Your task to perform on an android device: What is the capital of Italy? Image 0: 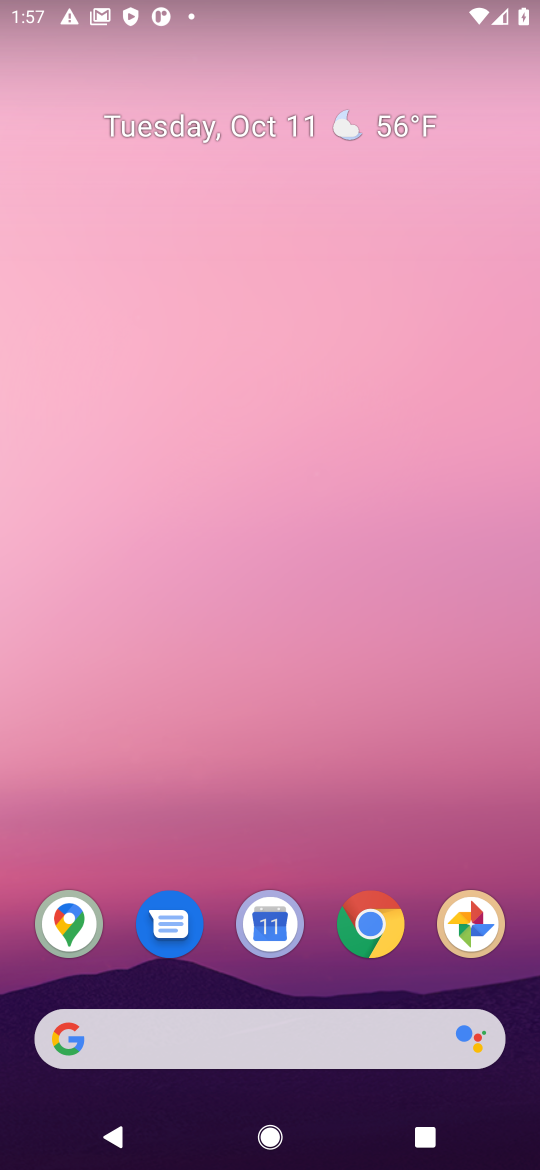
Step 0: drag from (321, 995) to (352, 59)
Your task to perform on an android device: What is the capital of Italy? Image 1: 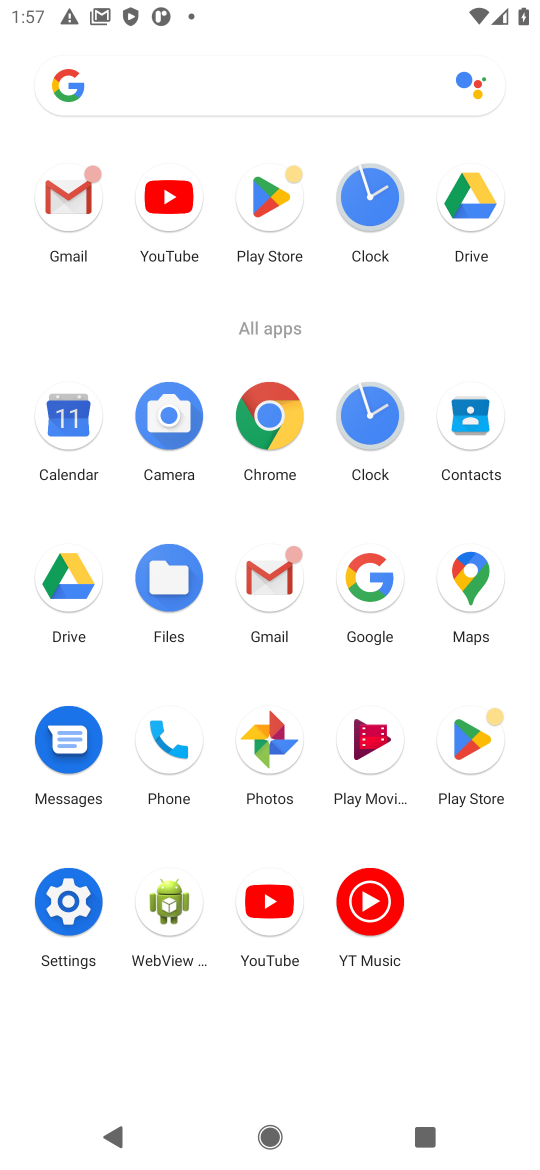
Step 1: click (367, 578)
Your task to perform on an android device: What is the capital of Italy? Image 2: 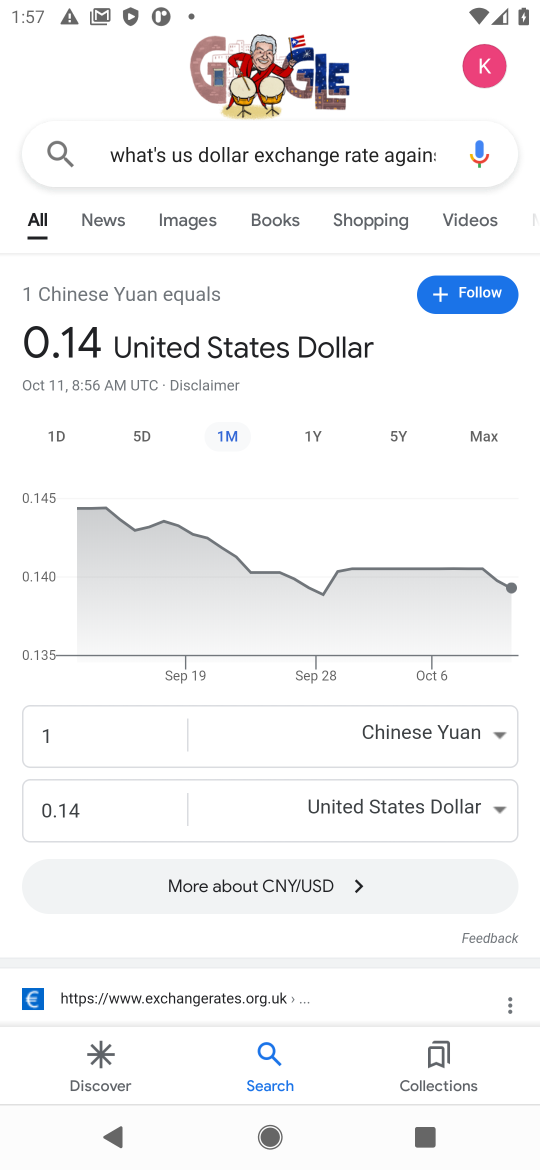
Step 2: click (285, 165)
Your task to perform on an android device: What is the capital of Italy? Image 3: 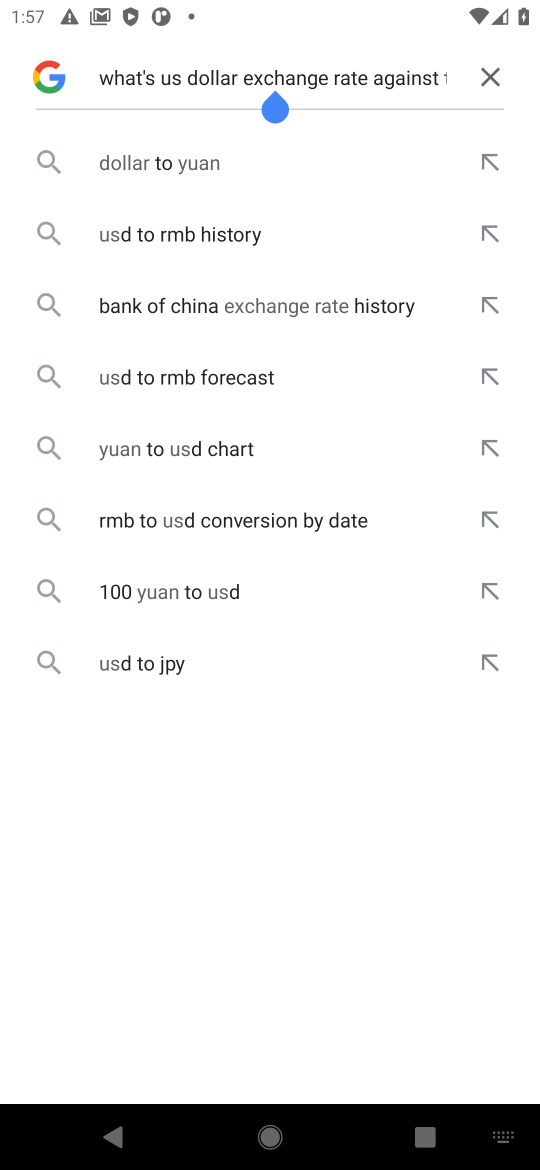
Step 3: click (483, 71)
Your task to perform on an android device: What is the capital of Italy? Image 4: 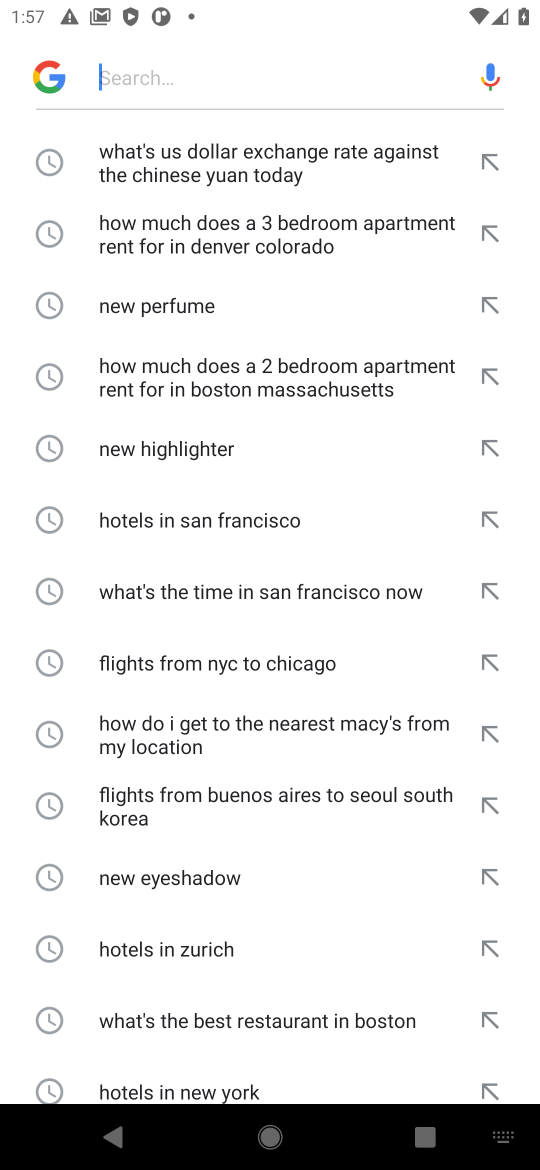
Step 4: type "What is the capital of Italy?"
Your task to perform on an android device: What is the capital of Italy? Image 5: 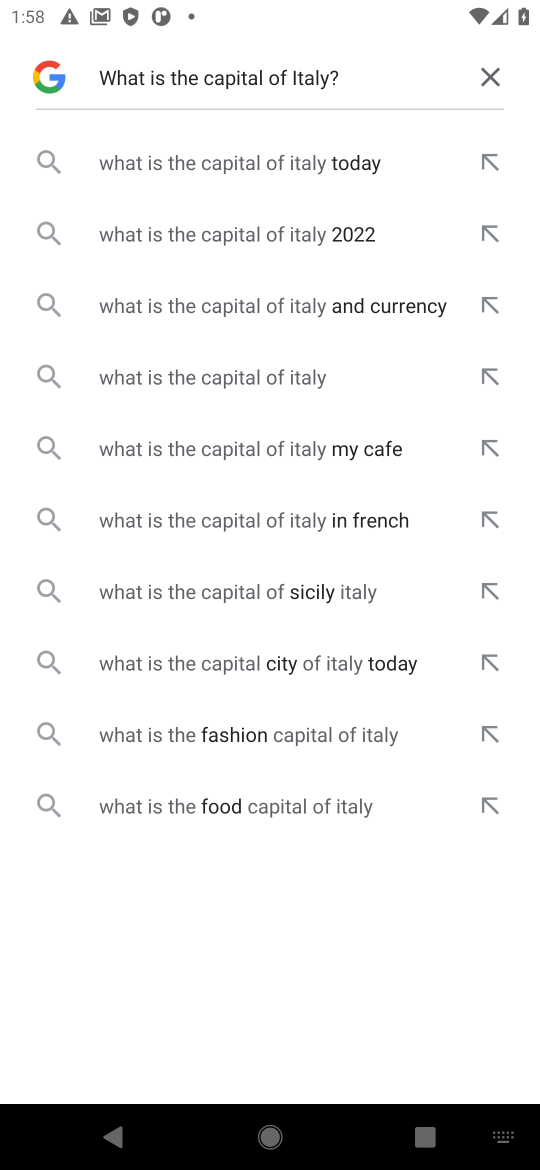
Step 5: click (233, 377)
Your task to perform on an android device: What is the capital of Italy? Image 6: 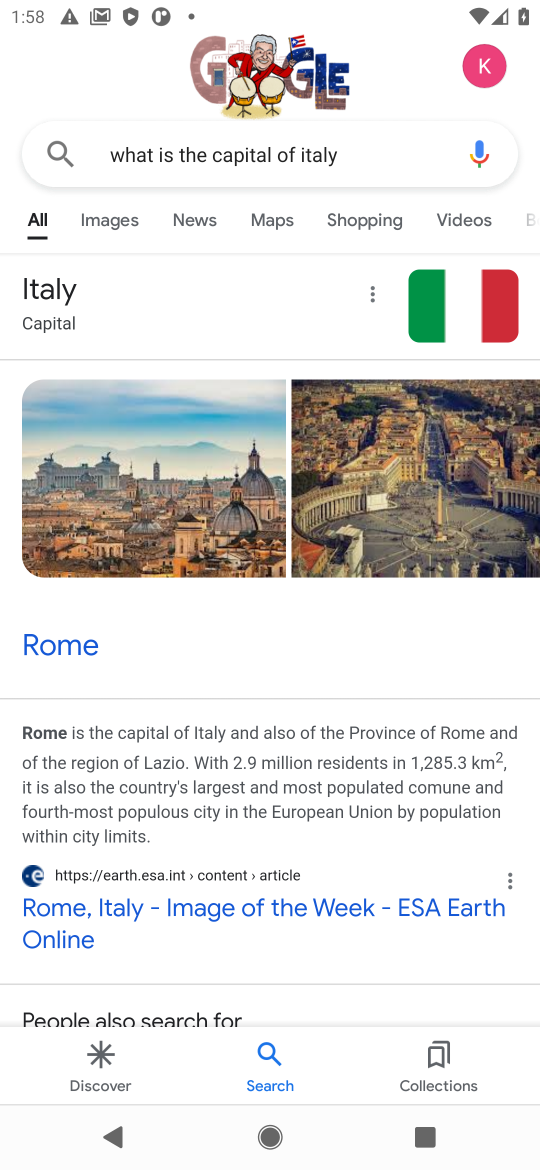
Step 6: task complete